Your task to perform on an android device: open device folders in google photos Image 0: 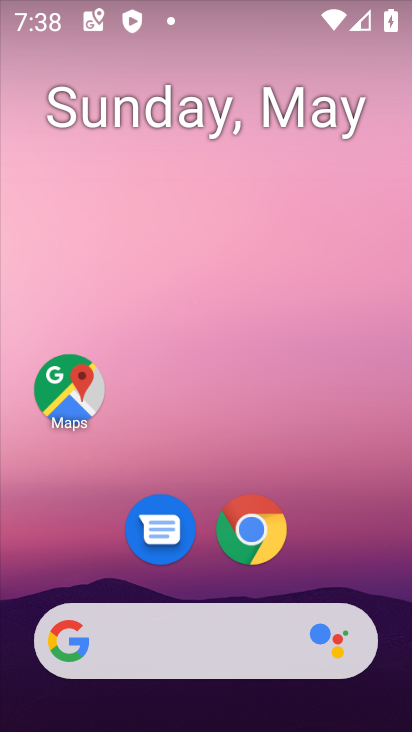
Step 0: drag from (382, 507) to (343, 0)
Your task to perform on an android device: open device folders in google photos Image 1: 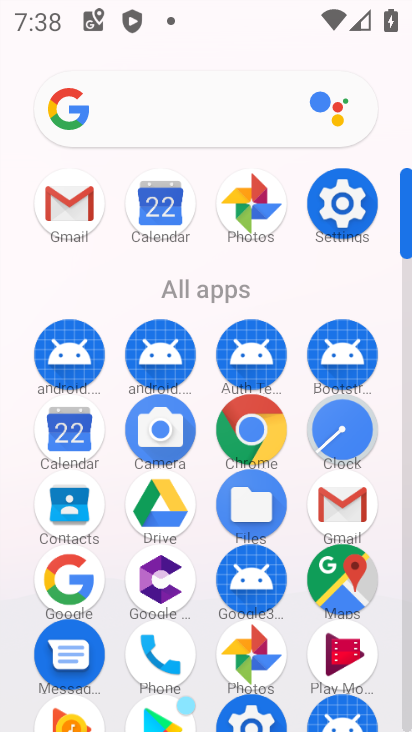
Step 1: click (258, 200)
Your task to perform on an android device: open device folders in google photos Image 2: 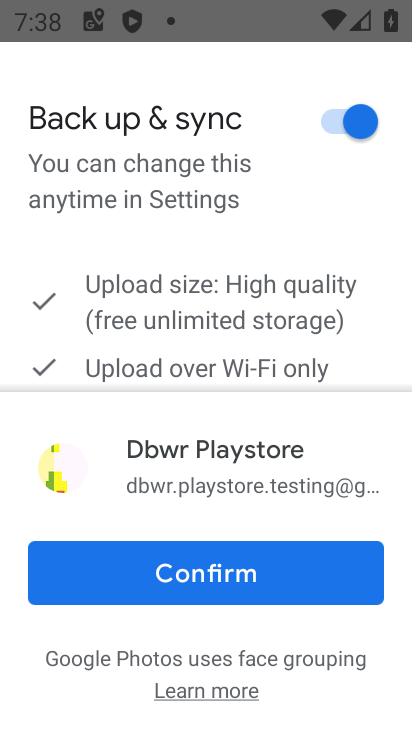
Step 2: click (221, 580)
Your task to perform on an android device: open device folders in google photos Image 3: 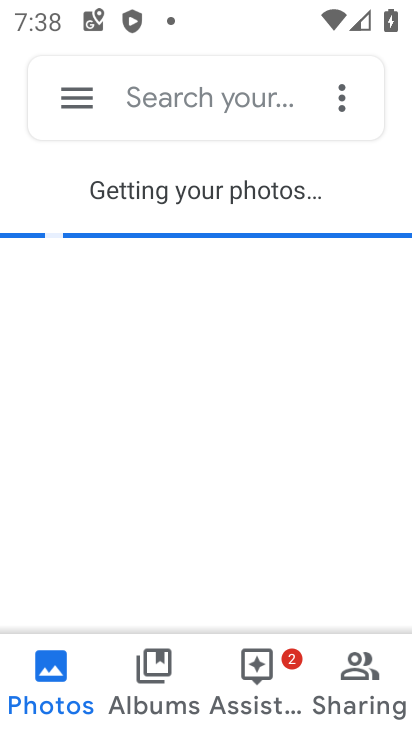
Step 3: click (76, 96)
Your task to perform on an android device: open device folders in google photos Image 4: 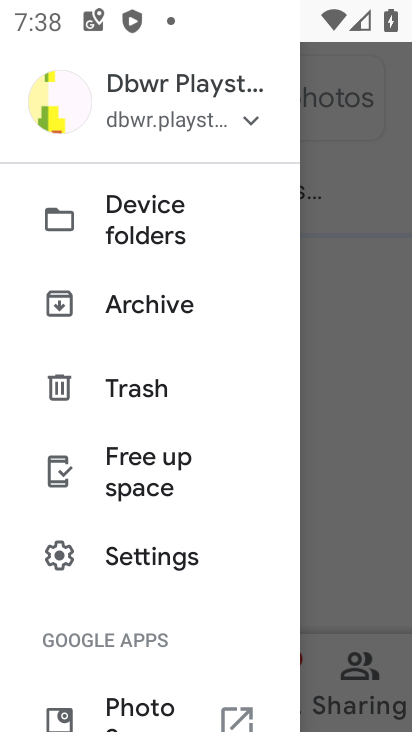
Step 4: click (129, 232)
Your task to perform on an android device: open device folders in google photos Image 5: 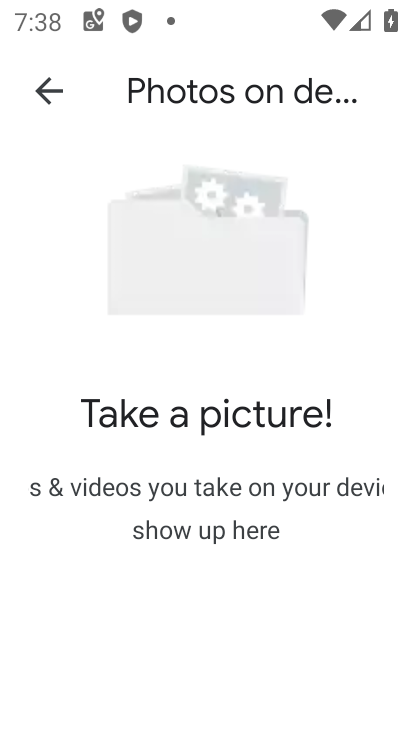
Step 5: task complete